Your task to perform on an android device: turn smart compose on in the gmail app Image 0: 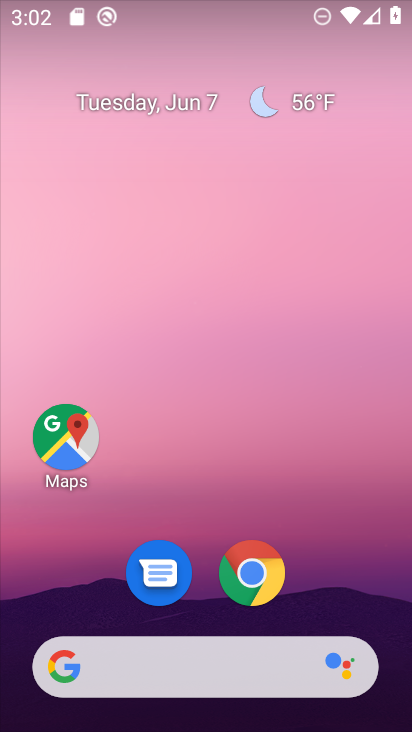
Step 0: drag from (334, 584) to (345, 5)
Your task to perform on an android device: turn smart compose on in the gmail app Image 1: 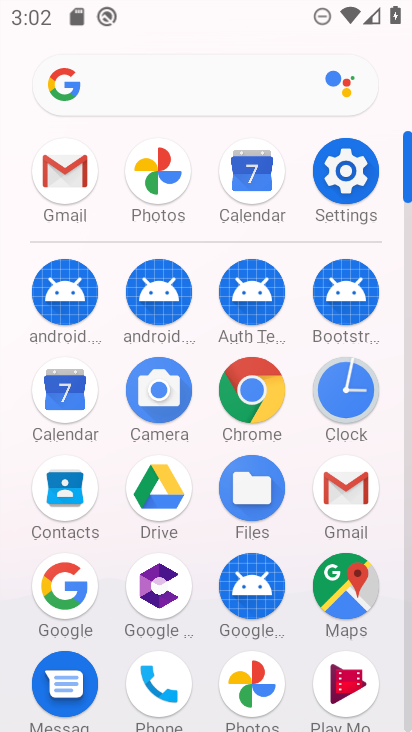
Step 1: click (341, 486)
Your task to perform on an android device: turn smart compose on in the gmail app Image 2: 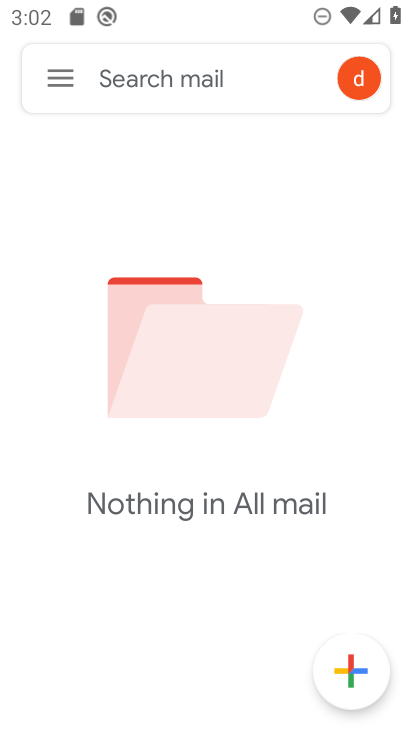
Step 2: click (43, 81)
Your task to perform on an android device: turn smart compose on in the gmail app Image 3: 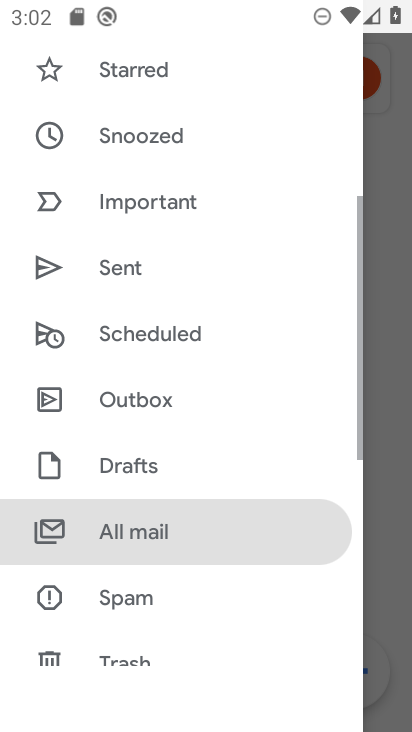
Step 3: drag from (131, 623) to (189, 87)
Your task to perform on an android device: turn smart compose on in the gmail app Image 4: 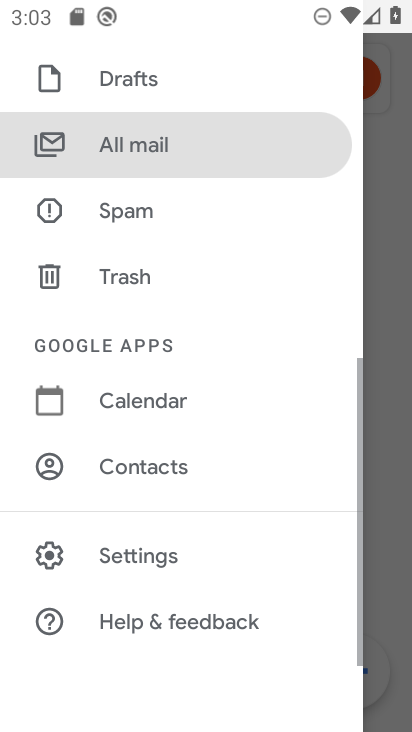
Step 4: click (169, 560)
Your task to perform on an android device: turn smart compose on in the gmail app Image 5: 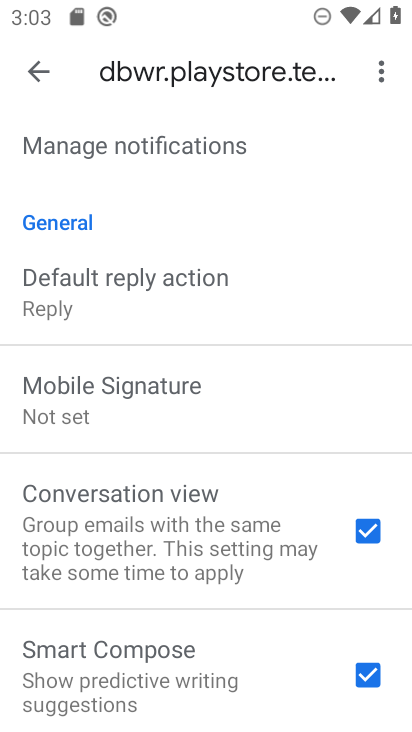
Step 5: task complete